Your task to perform on an android device: turn on improve location accuracy Image 0: 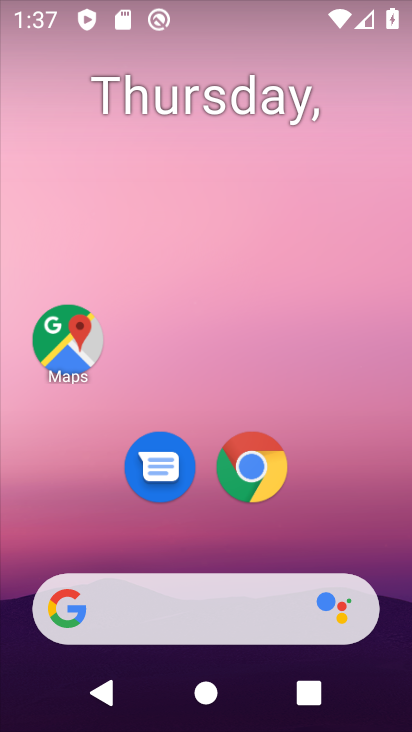
Step 0: drag from (344, 499) to (322, 48)
Your task to perform on an android device: turn on improve location accuracy Image 1: 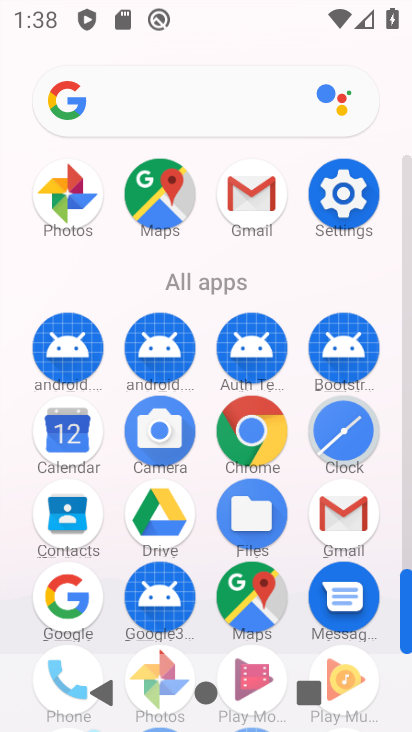
Step 1: click (340, 171)
Your task to perform on an android device: turn on improve location accuracy Image 2: 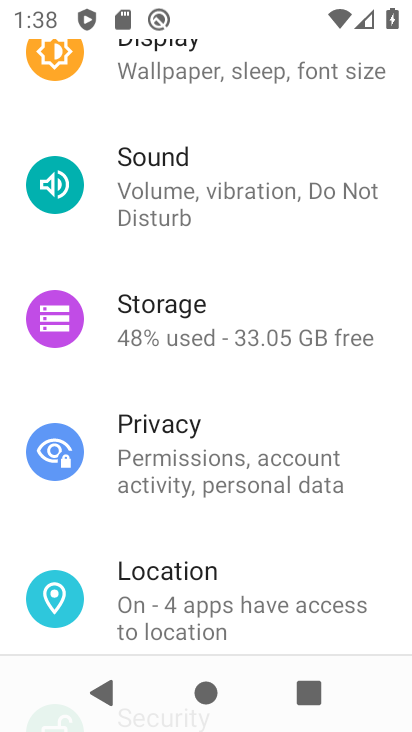
Step 2: click (230, 570)
Your task to perform on an android device: turn on improve location accuracy Image 3: 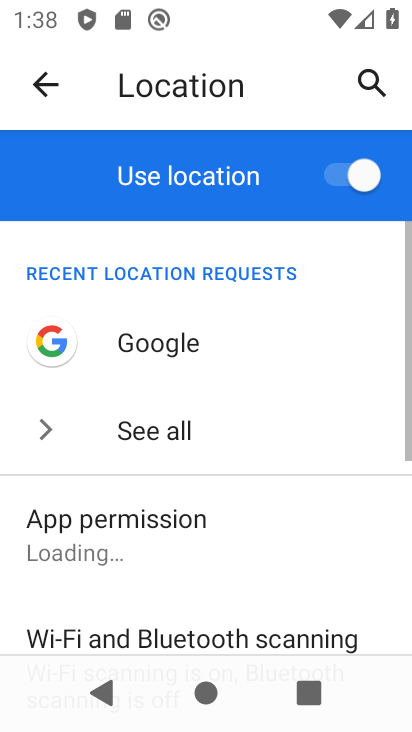
Step 3: drag from (293, 558) to (287, 234)
Your task to perform on an android device: turn on improve location accuracy Image 4: 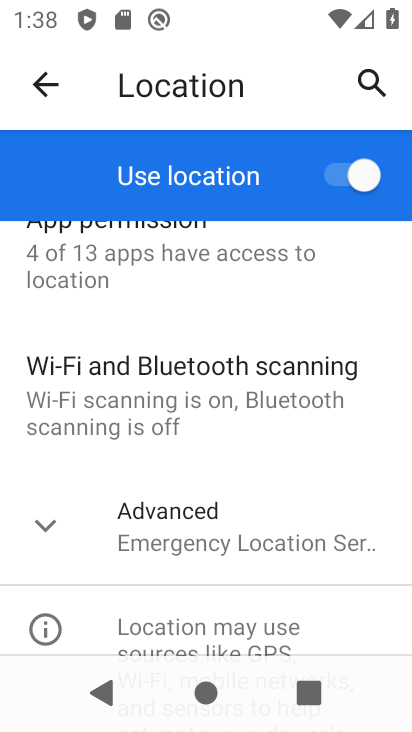
Step 4: click (285, 532)
Your task to perform on an android device: turn on improve location accuracy Image 5: 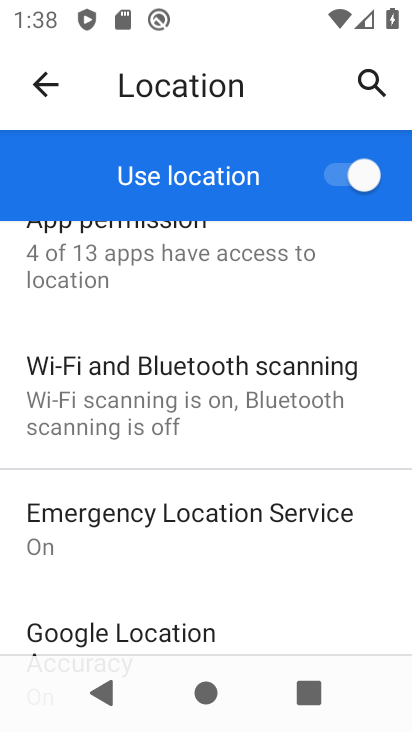
Step 5: drag from (198, 601) to (190, 417)
Your task to perform on an android device: turn on improve location accuracy Image 6: 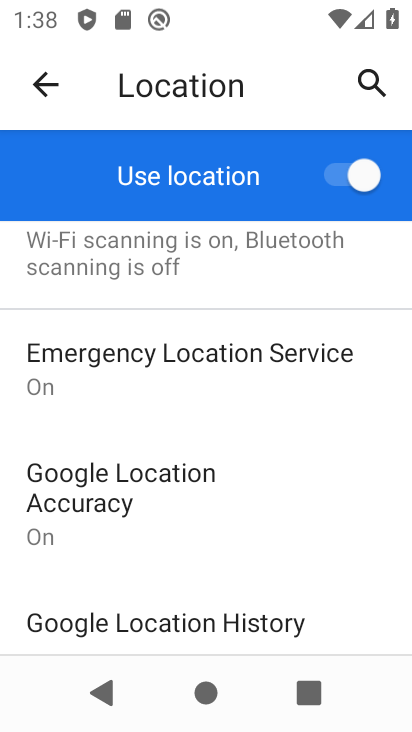
Step 6: click (197, 479)
Your task to perform on an android device: turn on improve location accuracy Image 7: 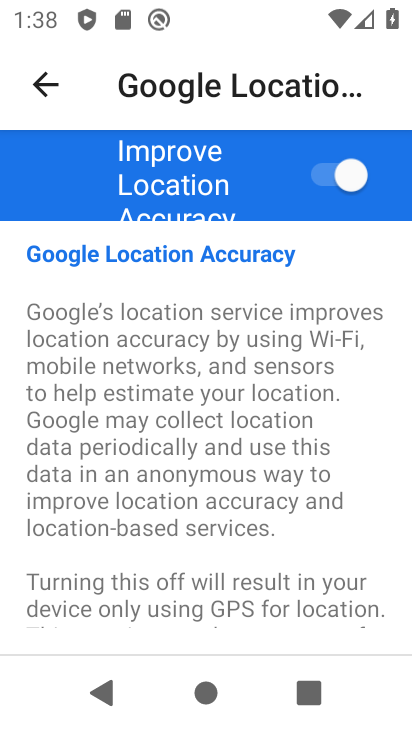
Step 7: task complete